Your task to perform on an android device: Open the map Image 0: 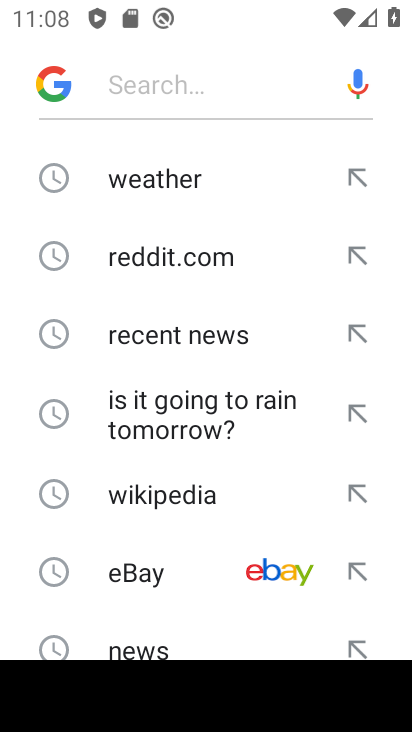
Step 0: press home button
Your task to perform on an android device: Open the map Image 1: 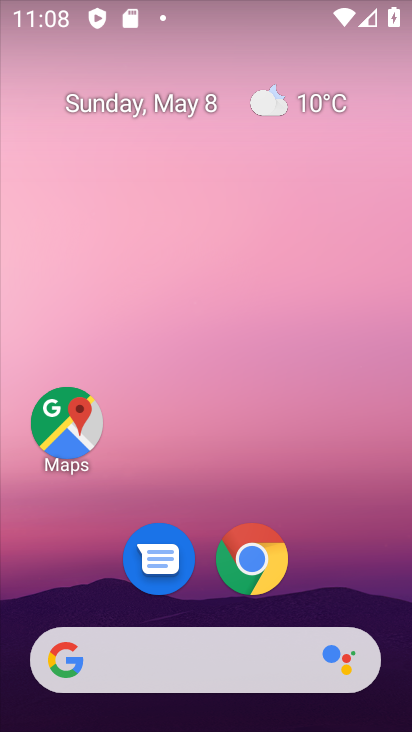
Step 1: click (68, 434)
Your task to perform on an android device: Open the map Image 2: 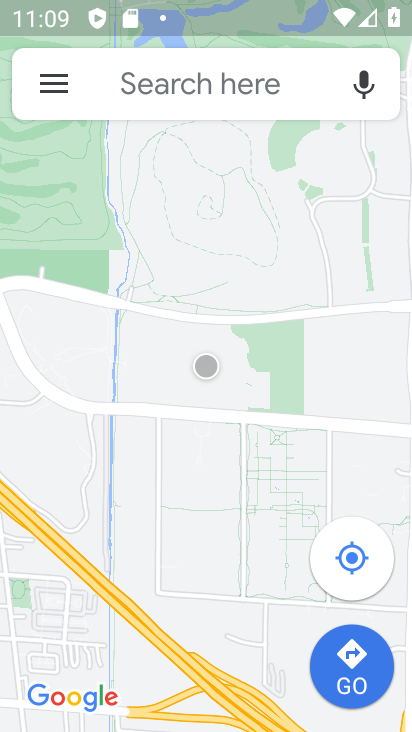
Step 2: task complete